Your task to perform on an android device: Go to Wikipedia Image 0: 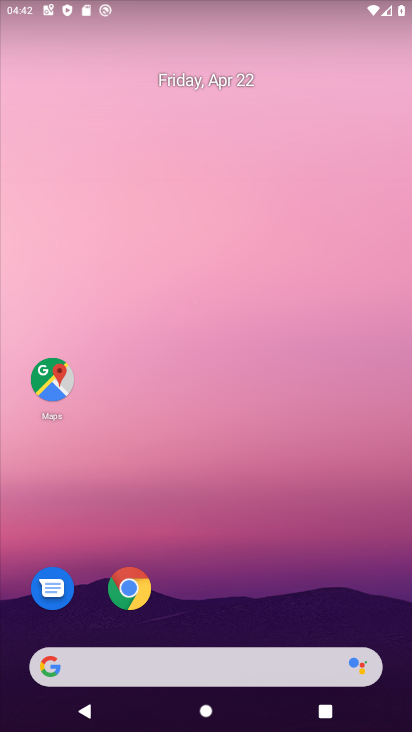
Step 0: click (132, 591)
Your task to perform on an android device: Go to Wikipedia Image 1: 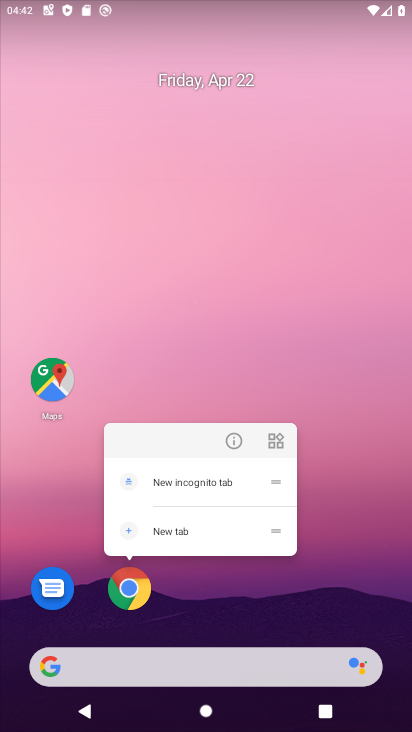
Step 1: click (132, 591)
Your task to perform on an android device: Go to Wikipedia Image 2: 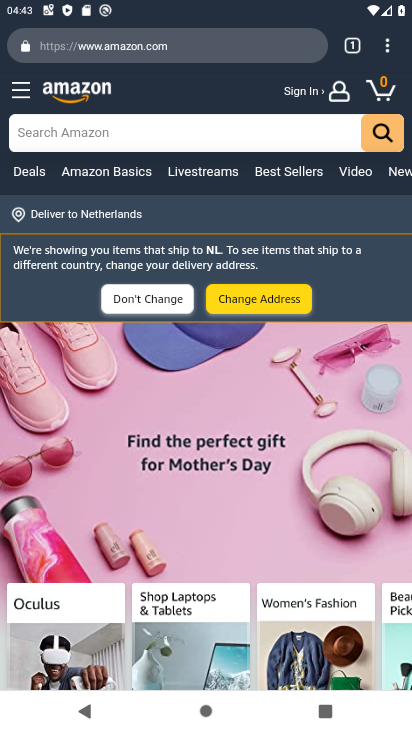
Step 2: click (354, 43)
Your task to perform on an android device: Go to Wikipedia Image 3: 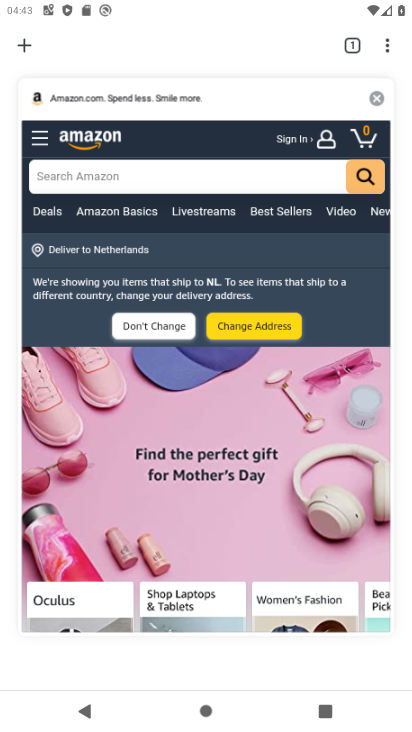
Step 3: click (22, 42)
Your task to perform on an android device: Go to Wikipedia Image 4: 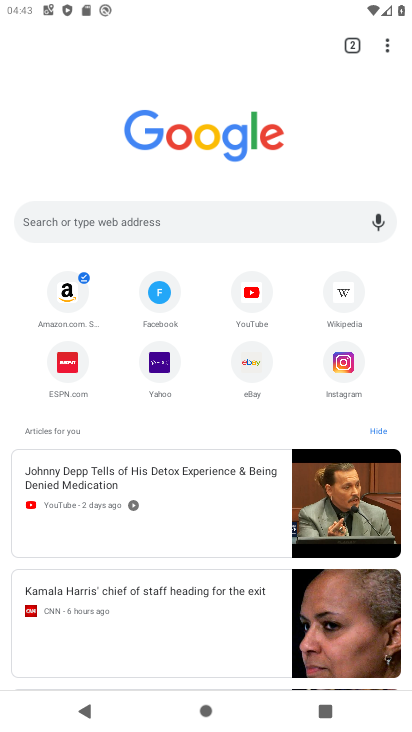
Step 4: click (342, 302)
Your task to perform on an android device: Go to Wikipedia Image 5: 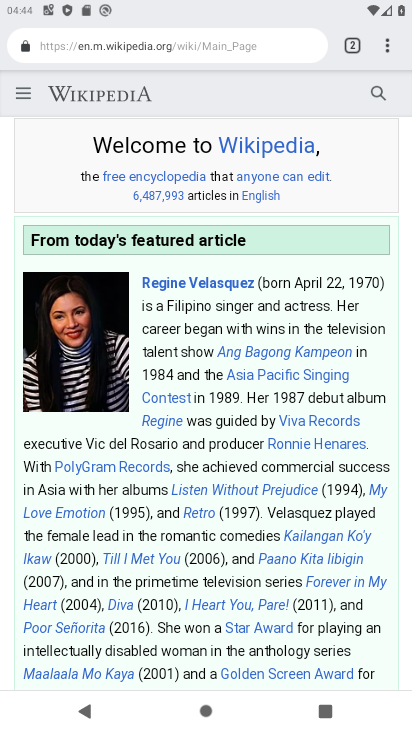
Step 5: task complete